Your task to perform on an android device: change text size in settings app Image 0: 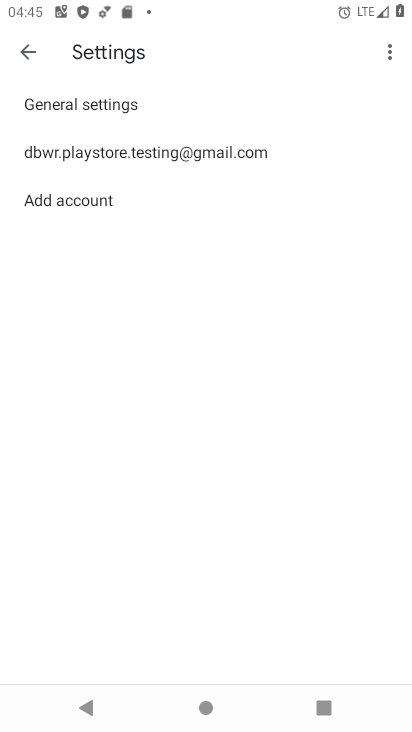
Step 0: press home button
Your task to perform on an android device: change text size in settings app Image 1: 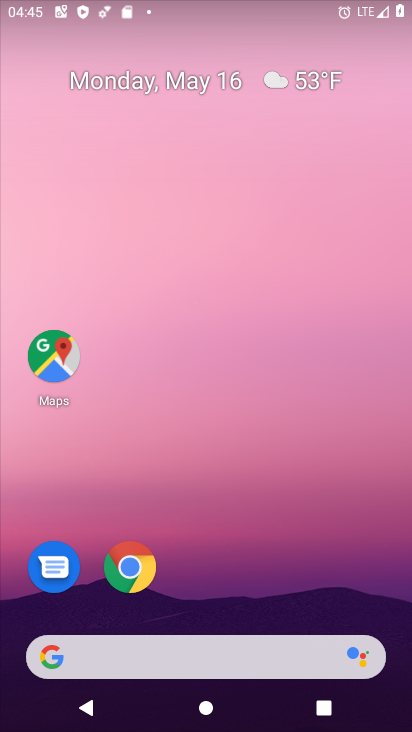
Step 1: drag from (272, 665) to (206, 187)
Your task to perform on an android device: change text size in settings app Image 2: 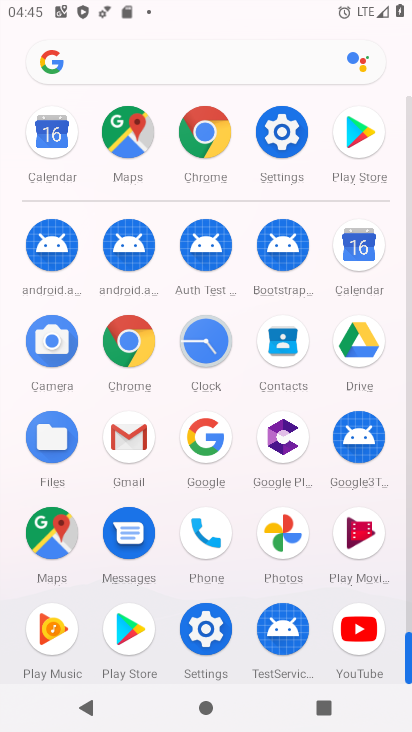
Step 2: click (273, 141)
Your task to perform on an android device: change text size in settings app Image 3: 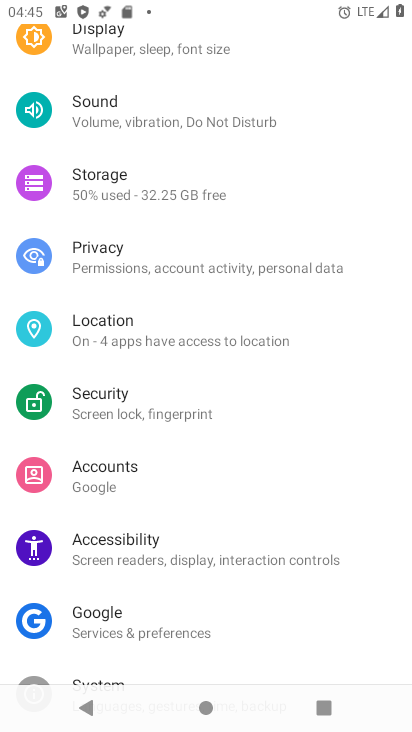
Step 3: drag from (256, 615) to (264, 133)
Your task to perform on an android device: change text size in settings app Image 4: 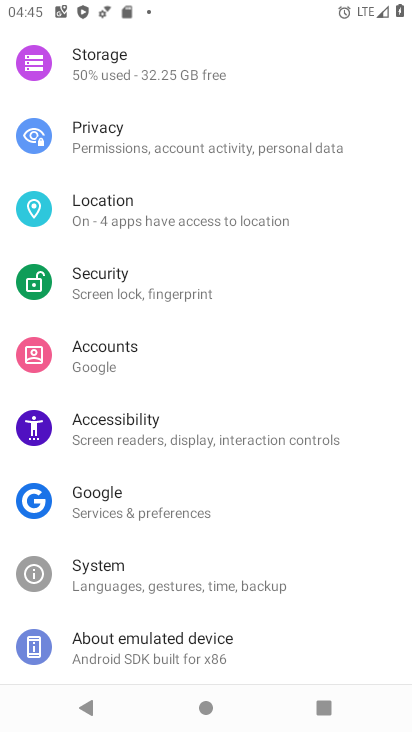
Step 4: click (257, 591)
Your task to perform on an android device: change text size in settings app Image 5: 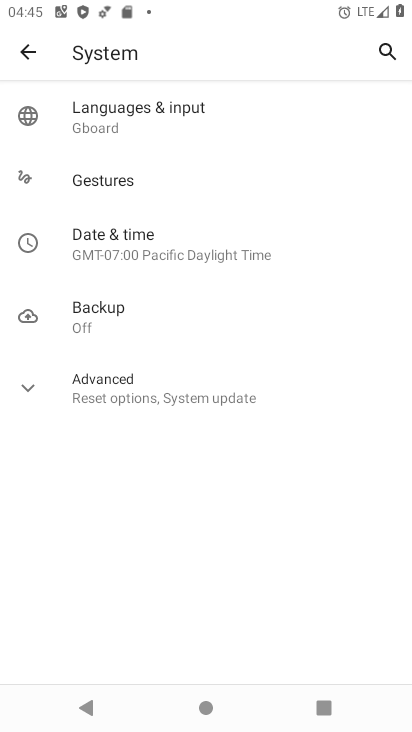
Step 5: press back button
Your task to perform on an android device: change text size in settings app Image 6: 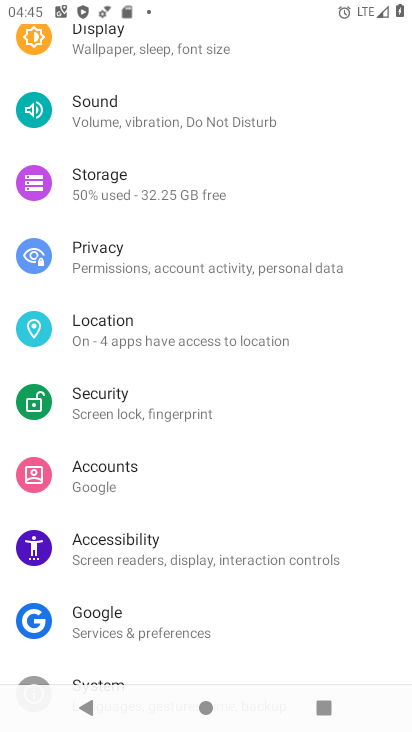
Step 6: click (168, 543)
Your task to perform on an android device: change text size in settings app Image 7: 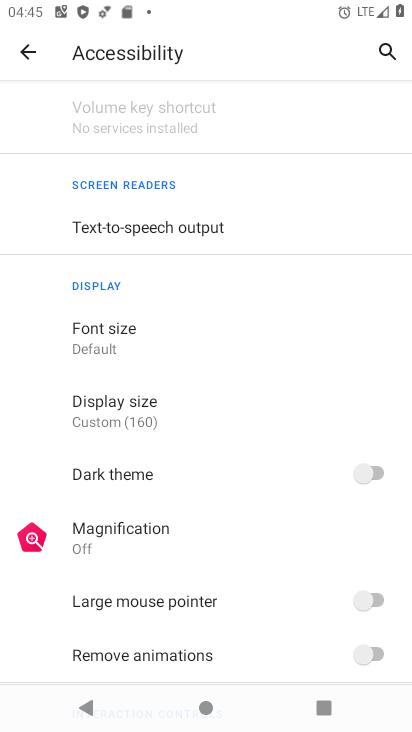
Step 7: click (185, 343)
Your task to perform on an android device: change text size in settings app Image 8: 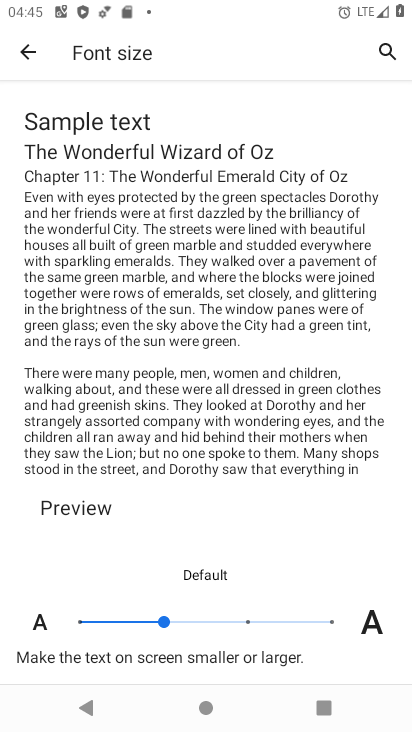
Step 8: click (231, 623)
Your task to perform on an android device: change text size in settings app Image 9: 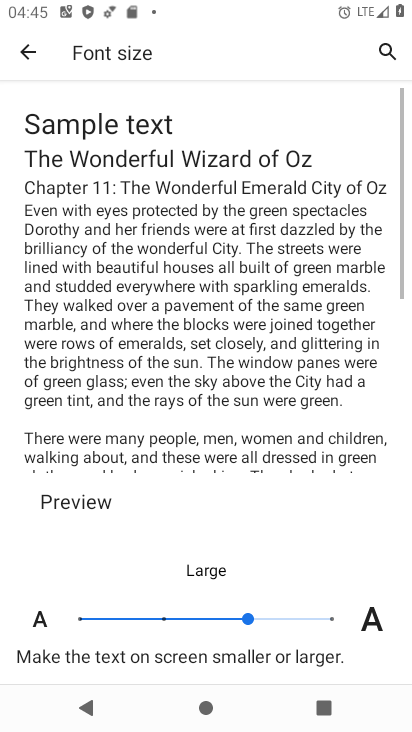
Step 9: task complete